Your task to perform on an android device: turn off location history Image 0: 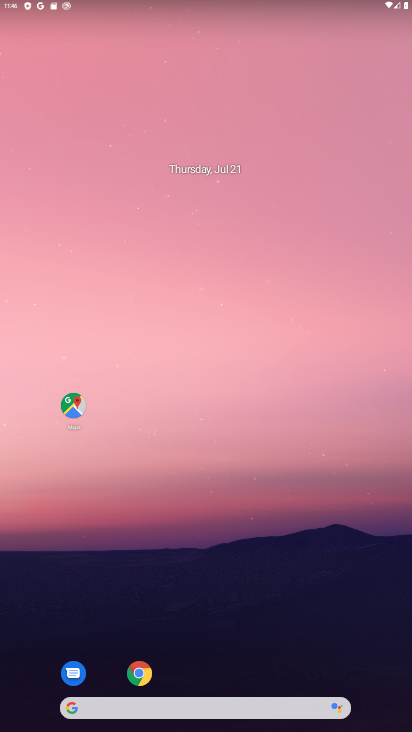
Step 0: drag from (277, 673) to (242, 129)
Your task to perform on an android device: turn off location history Image 1: 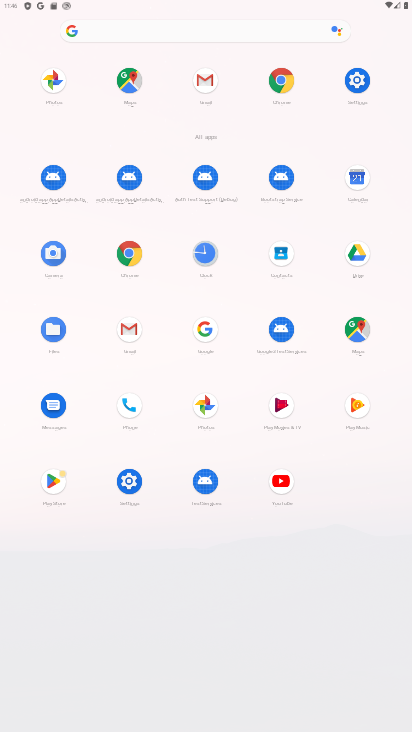
Step 1: drag from (355, 111) to (107, 182)
Your task to perform on an android device: turn off location history Image 2: 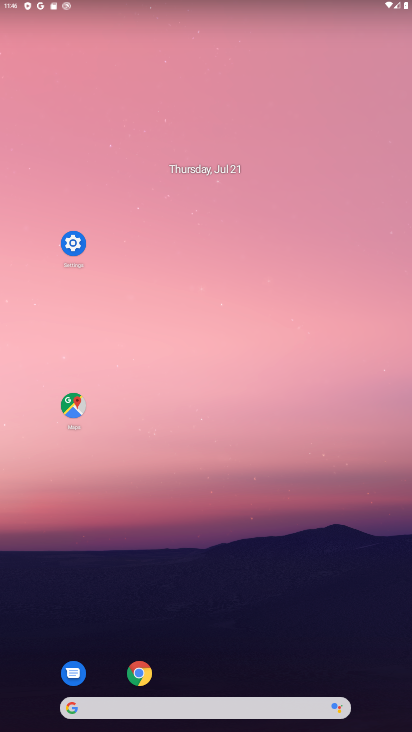
Step 2: click (75, 249)
Your task to perform on an android device: turn off location history Image 3: 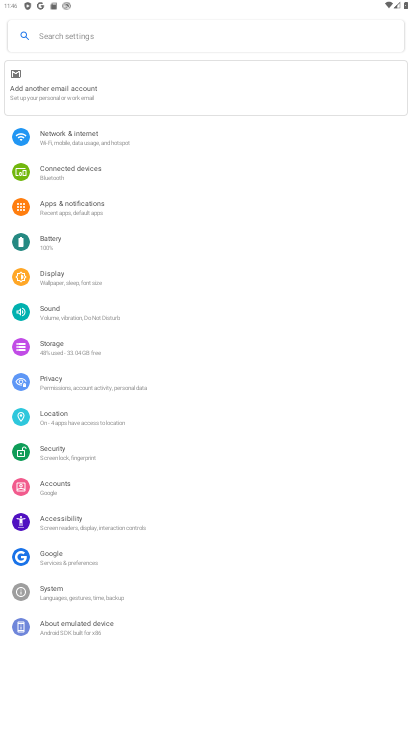
Step 3: click (147, 410)
Your task to perform on an android device: turn off location history Image 4: 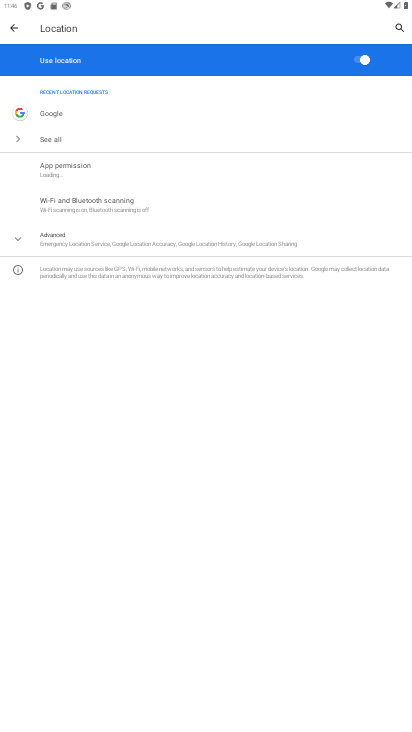
Step 4: click (176, 239)
Your task to perform on an android device: turn off location history Image 5: 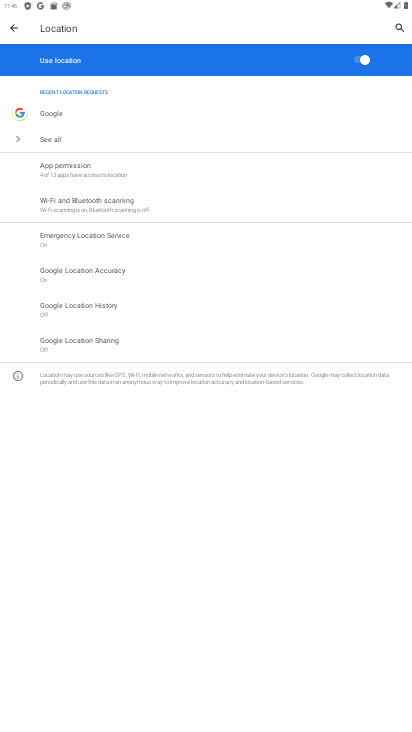
Step 5: click (132, 310)
Your task to perform on an android device: turn off location history Image 6: 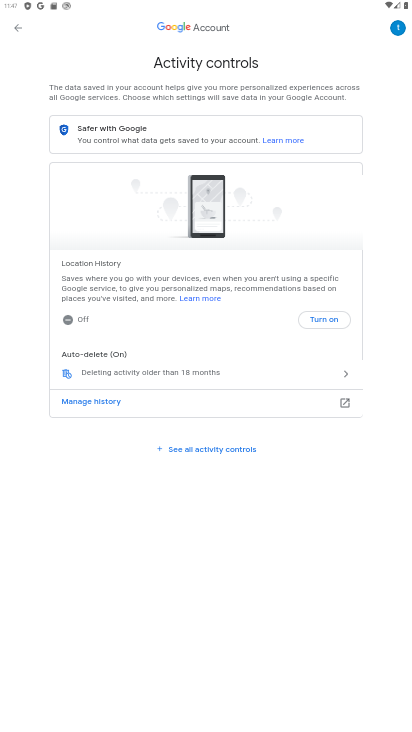
Step 6: task complete